Your task to perform on an android device: change alarm snooze length Image 0: 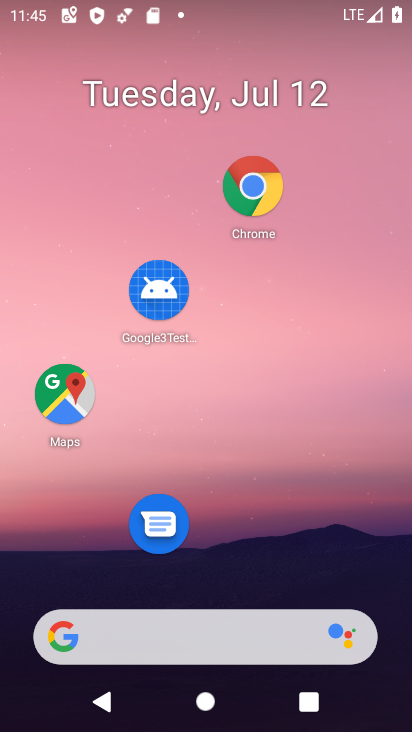
Step 0: drag from (235, 599) to (233, 192)
Your task to perform on an android device: change alarm snooze length Image 1: 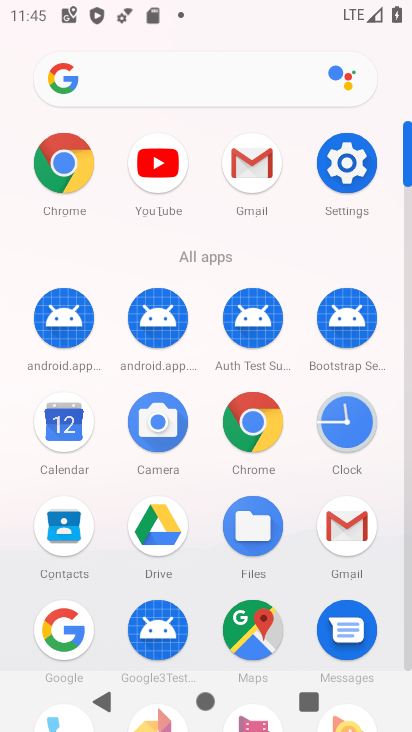
Step 1: click (352, 439)
Your task to perform on an android device: change alarm snooze length Image 2: 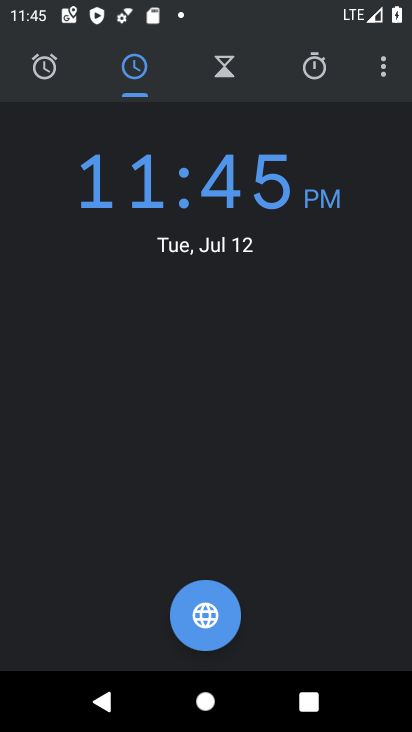
Step 2: click (379, 55)
Your task to perform on an android device: change alarm snooze length Image 3: 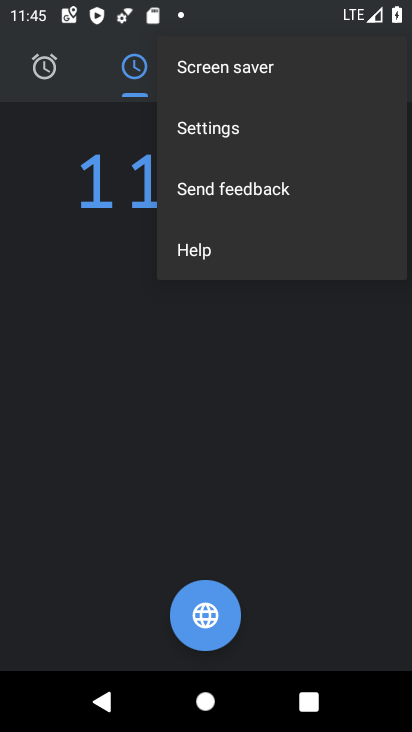
Step 3: click (249, 124)
Your task to perform on an android device: change alarm snooze length Image 4: 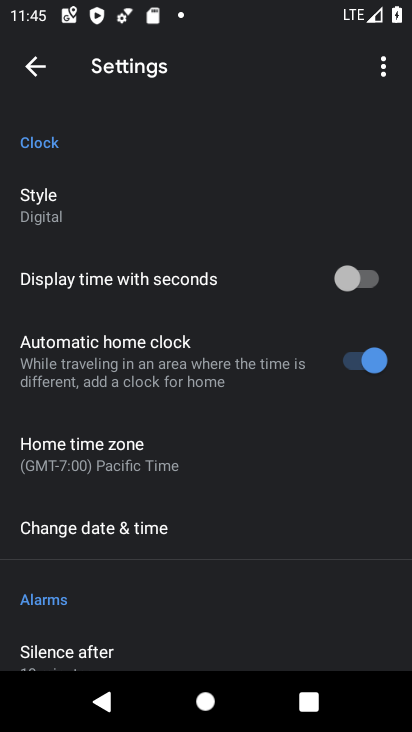
Step 4: drag from (130, 618) to (111, 178)
Your task to perform on an android device: change alarm snooze length Image 5: 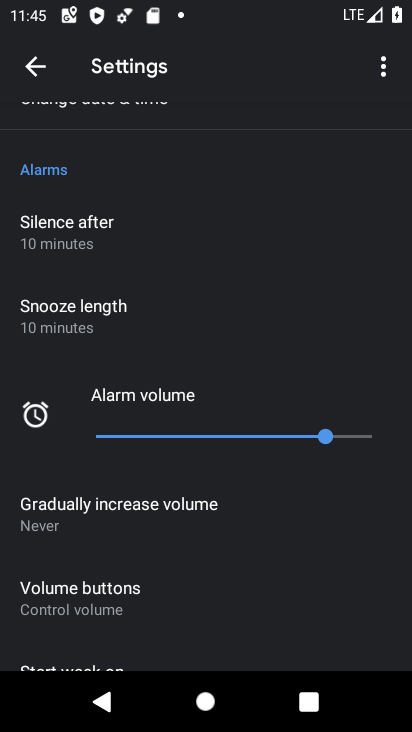
Step 5: click (119, 323)
Your task to perform on an android device: change alarm snooze length Image 6: 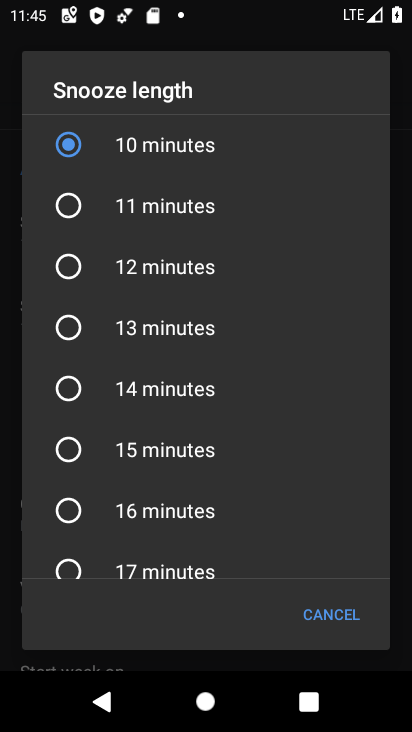
Step 6: click (162, 230)
Your task to perform on an android device: change alarm snooze length Image 7: 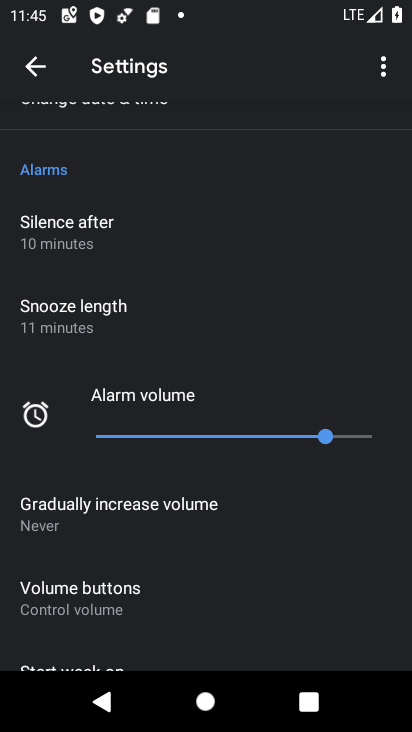
Step 7: task complete